Your task to perform on an android device: toggle notification dots Image 0: 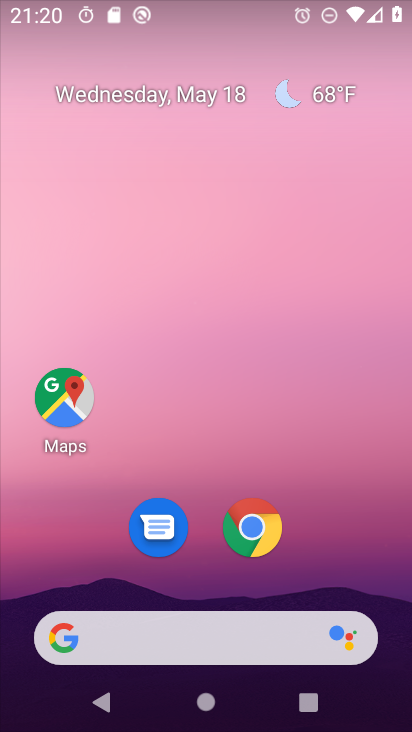
Step 0: click (380, 424)
Your task to perform on an android device: toggle notification dots Image 1: 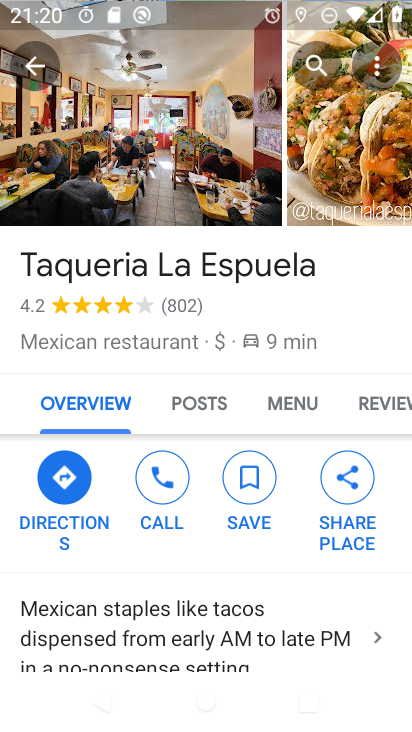
Step 1: press home button
Your task to perform on an android device: toggle notification dots Image 2: 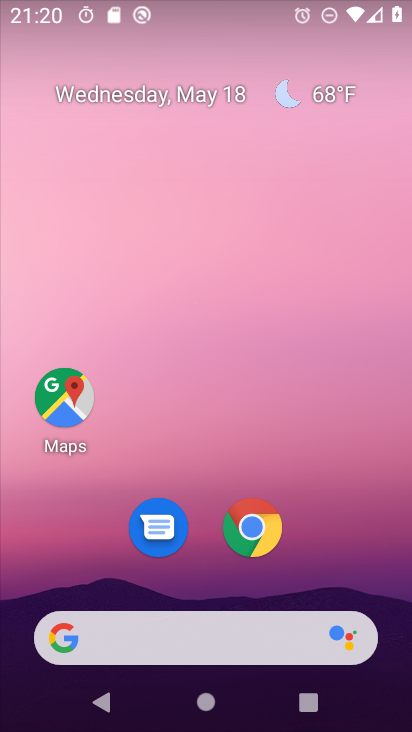
Step 2: drag from (379, 418) to (363, 83)
Your task to perform on an android device: toggle notification dots Image 3: 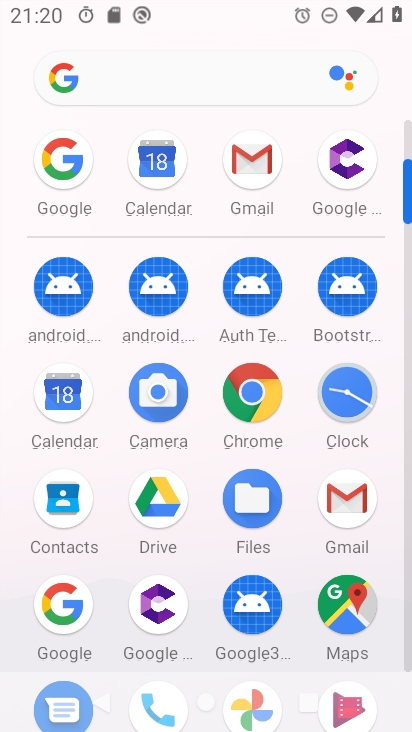
Step 3: drag from (406, 167) to (406, 103)
Your task to perform on an android device: toggle notification dots Image 4: 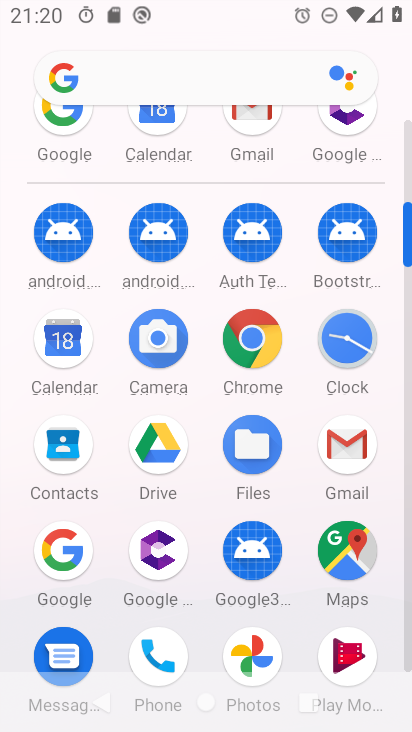
Step 4: drag from (407, 206) to (405, 133)
Your task to perform on an android device: toggle notification dots Image 5: 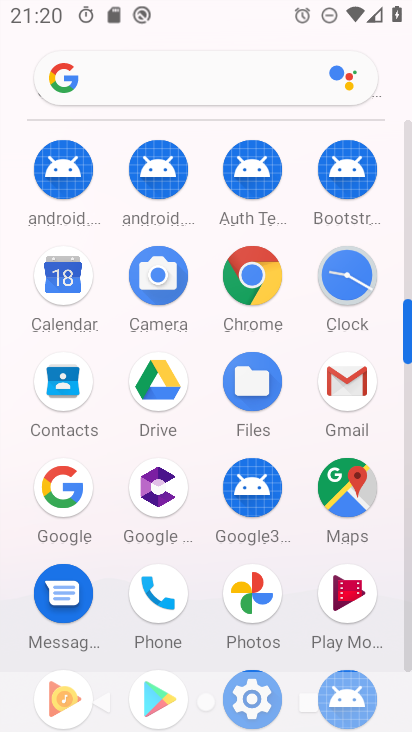
Step 5: drag from (411, 302) to (410, 210)
Your task to perform on an android device: toggle notification dots Image 6: 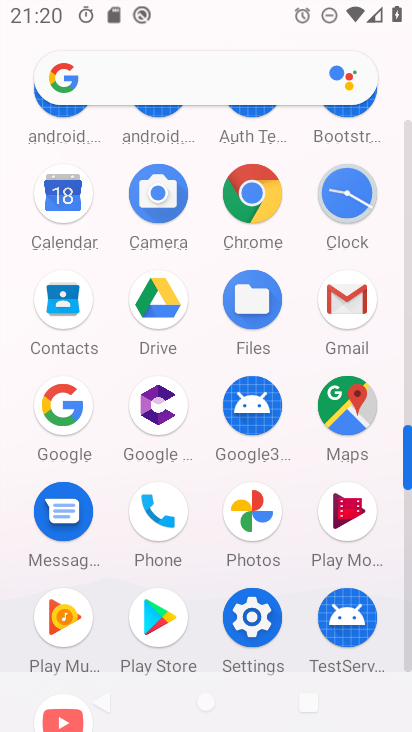
Step 6: click (258, 617)
Your task to perform on an android device: toggle notification dots Image 7: 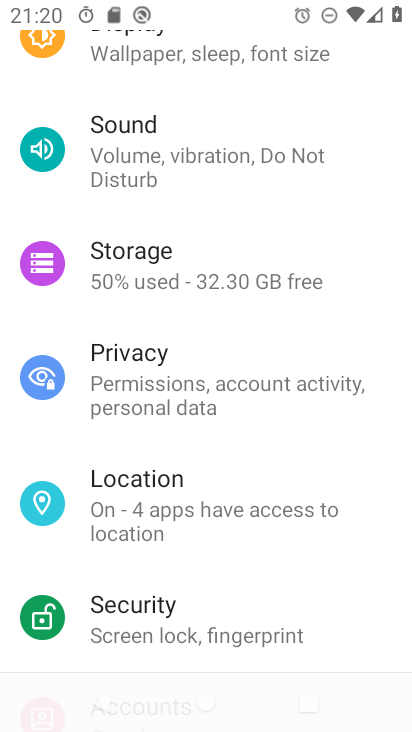
Step 7: drag from (306, 90) to (320, 459)
Your task to perform on an android device: toggle notification dots Image 8: 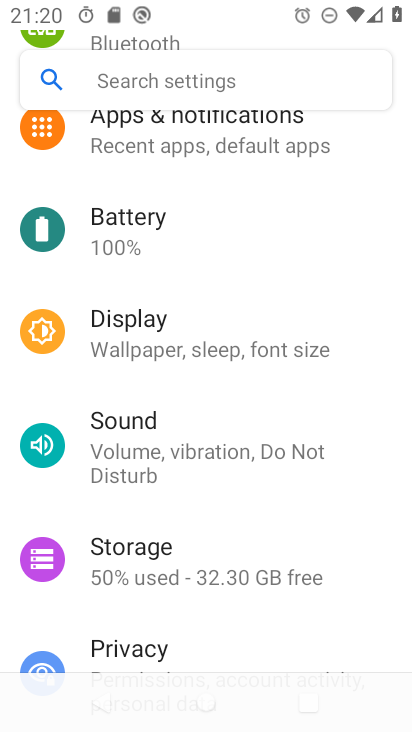
Step 8: click (155, 133)
Your task to perform on an android device: toggle notification dots Image 9: 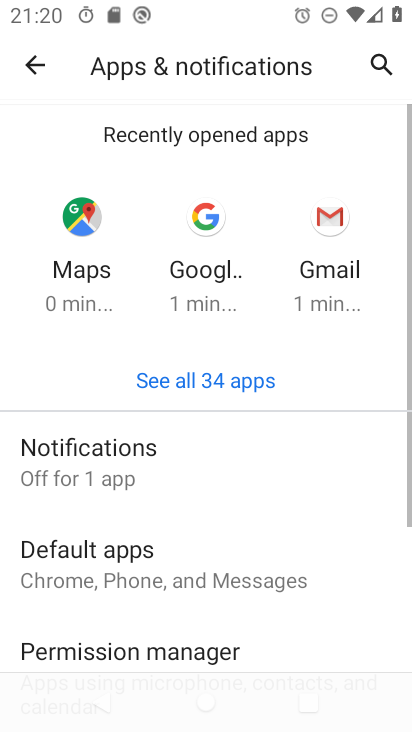
Step 9: click (91, 457)
Your task to perform on an android device: toggle notification dots Image 10: 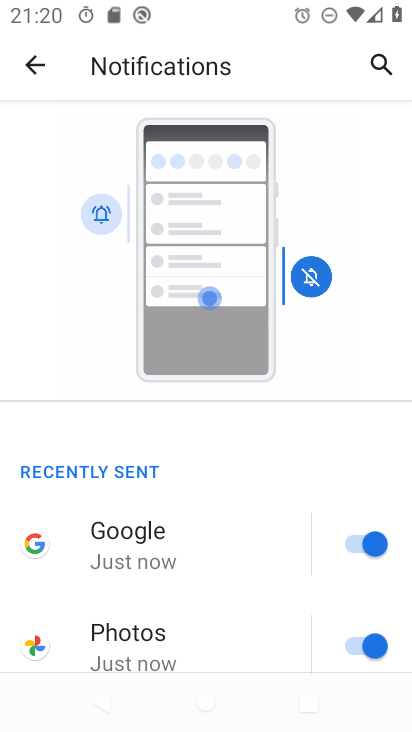
Step 10: drag from (278, 621) to (218, 369)
Your task to perform on an android device: toggle notification dots Image 11: 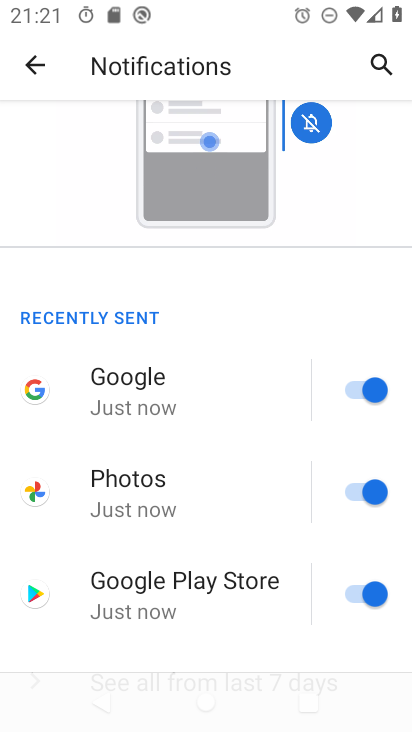
Step 11: drag from (265, 533) to (263, 332)
Your task to perform on an android device: toggle notification dots Image 12: 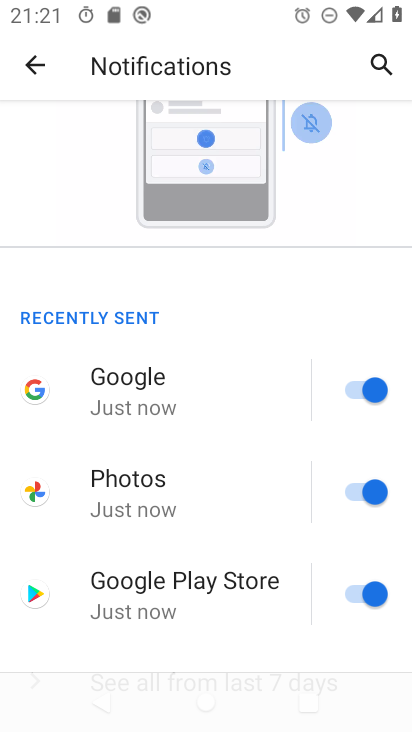
Step 12: drag from (289, 642) to (254, 392)
Your task to perform on an android device: toggle notification dots Image 13: 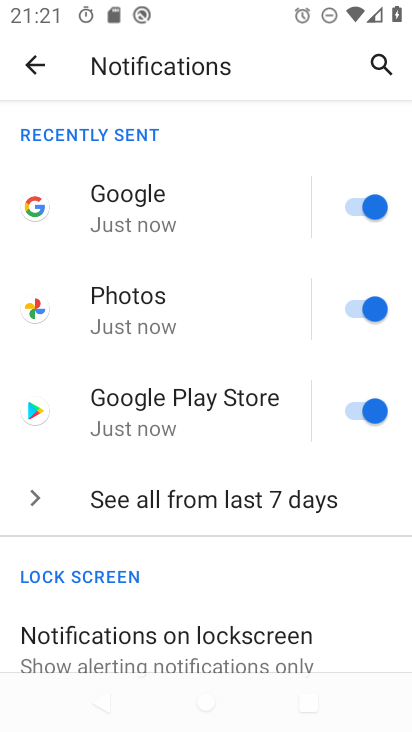
Step 13: drag from (298, 611) to (279, 402)
Your task to perform on an android device: toggle notification dots Image 14: 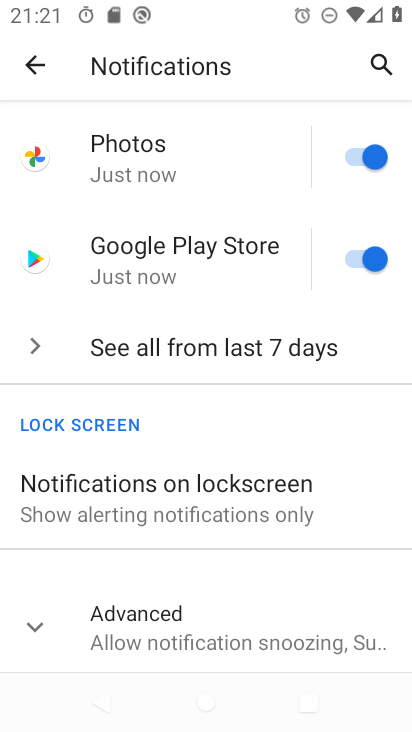
Step 14: click (46, 624)
Your task to perform on an android device: toggle notification dots Image 15: 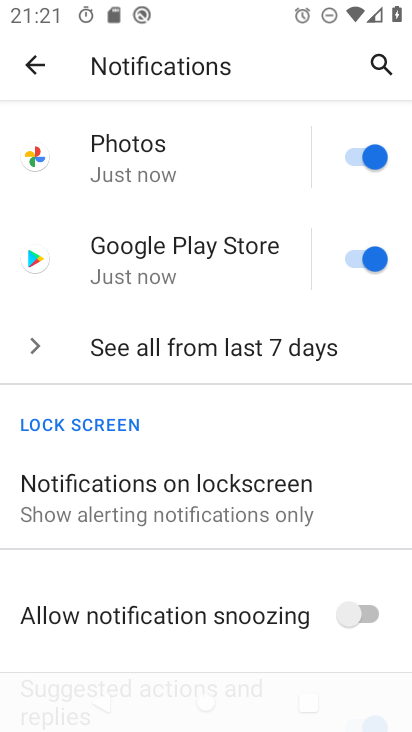
Step 15: drag from (398, 635) to (330, 331)
Your task to perform on an android device: toggle notification dots Image 16: 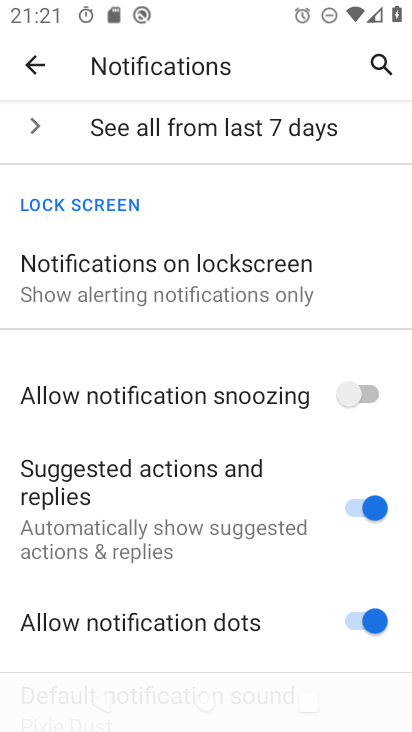
Step 16: click (353, 622)
Your task to perform on an android device: toggle notification dots Image 17: 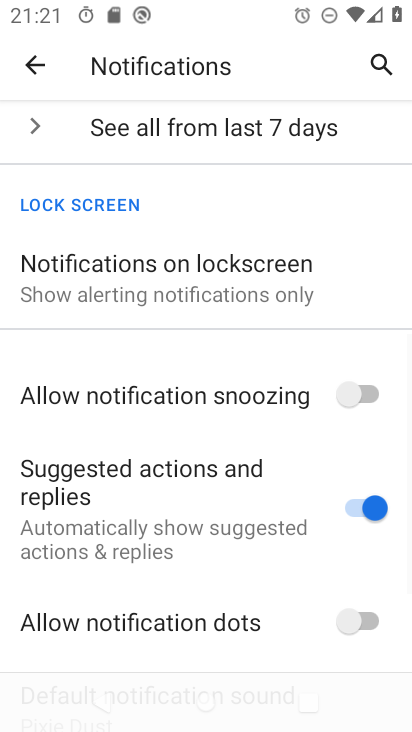
Step 17: task complete